Your task to perform on an android device: Show me the alarms in the clock app Image 0: 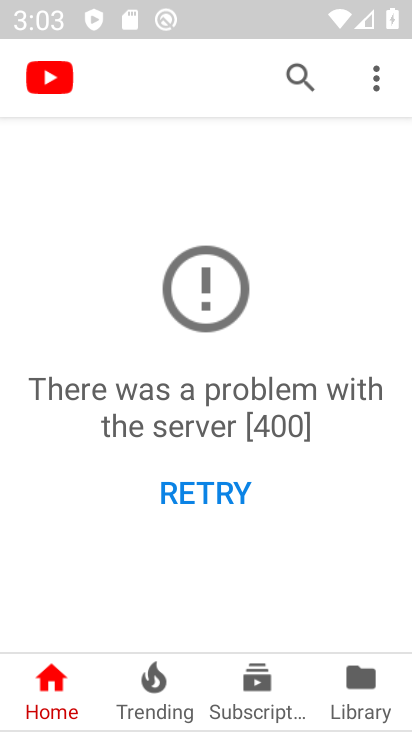
Step 0: press home button
Your task to perform on an android device: Show me the alarms in the clock app Image 1: 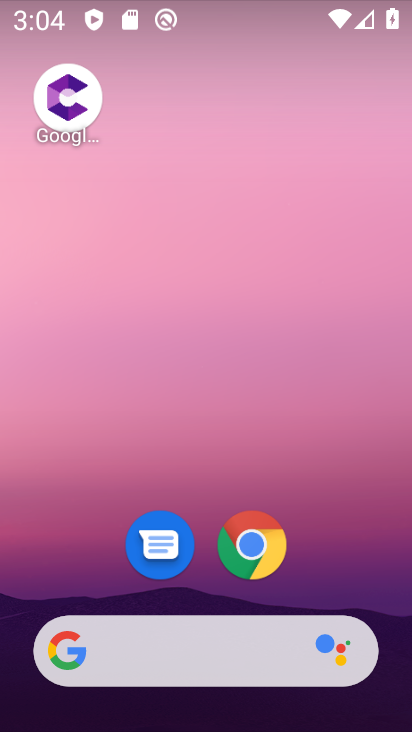
Step 1: drag from (215, 566) to (268, 93)
Your task to perform on an android device: Show me the alarms in the clock app Image 2: 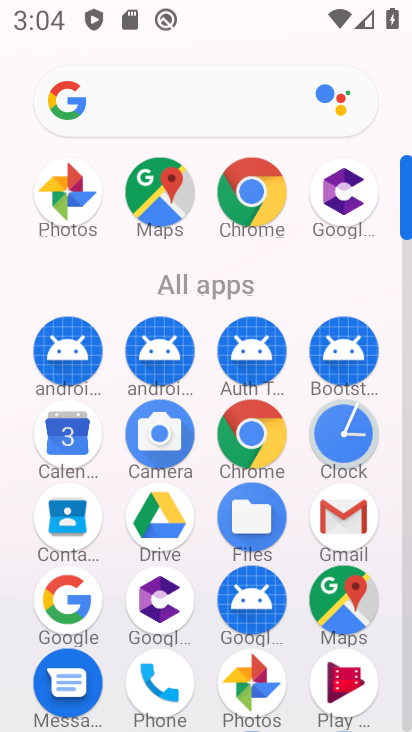
Step 2: click (342, 440)
Your task to perform on an android device: Show me the alarms in the clock app Image 3: 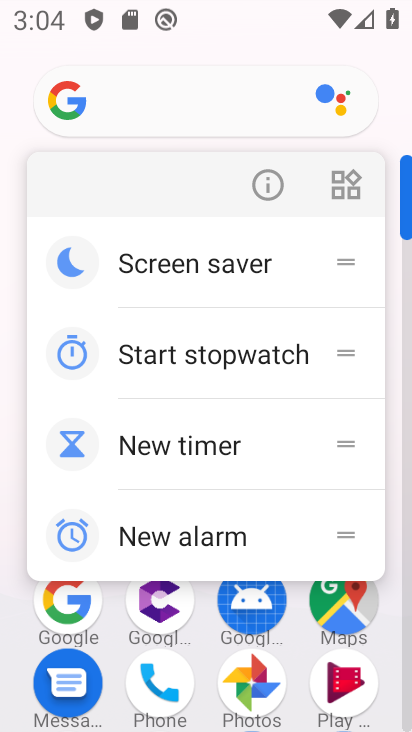
Step 3: click (402, 465)
Your task to perform on an android device: Show me the alarms in the clock app Image 4: 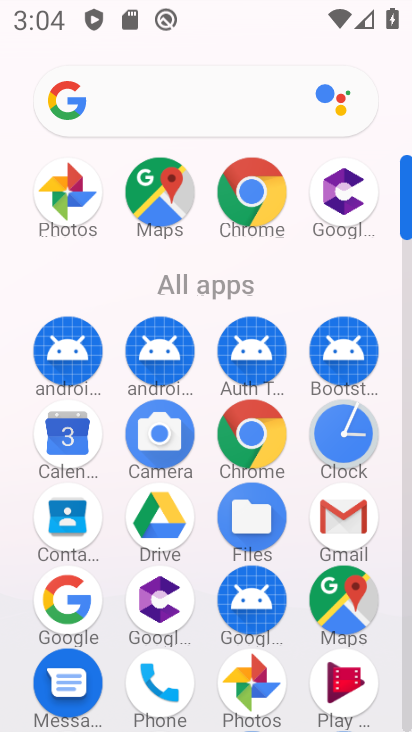
Step 4: click (327, 433)
Your task to perform on an android device: Show me the alarms in the clock app Image 5: 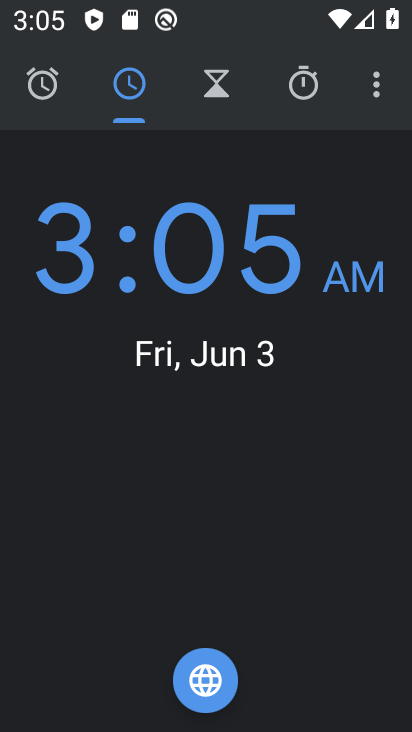
Step 5: click (27, 90)
Your task to perform on an android device: Show me the alarms in the clock app Image 6: 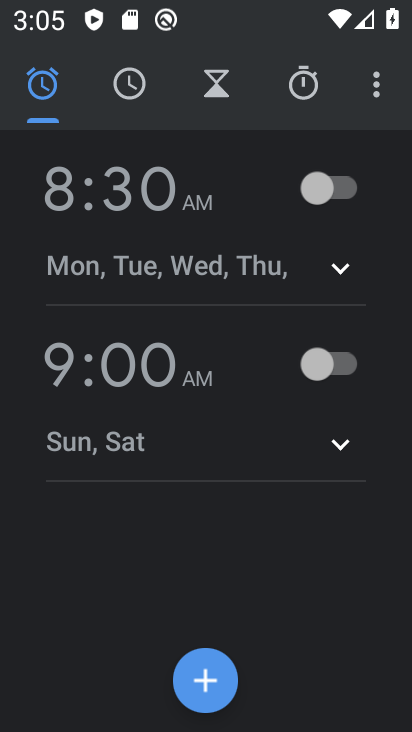
Step 6: task complete